Your task to perform on an android device: Go to notification settings Image 0: 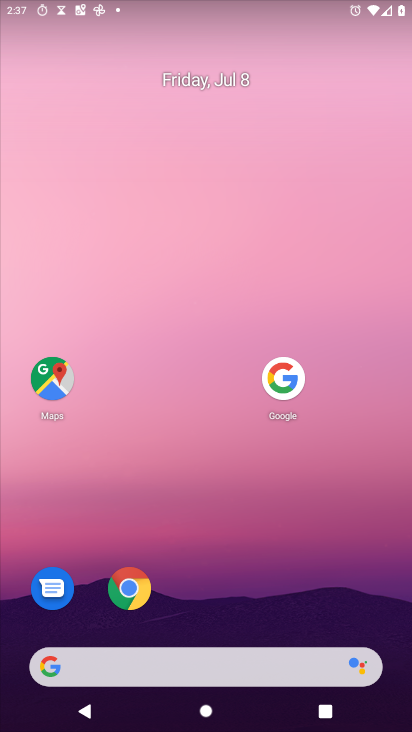
Step 0: drag from (250, 675) to (270, 140)
Your task to perform on an android device: Go to notification settings Image 1: 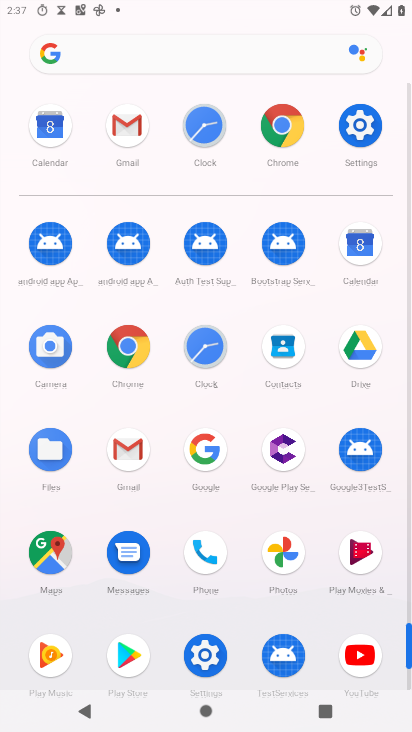
Step 1: click (350, 125)
Your task to perform on an android device: Go to notification settings Image 2: 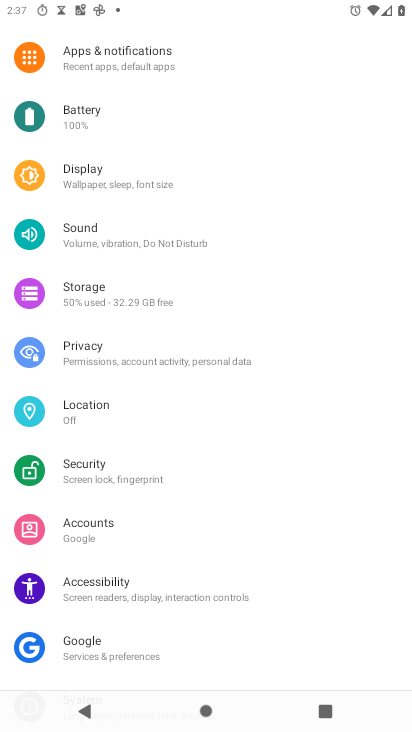
Step 2: click (141, 52)
Your task to perform on an android device: Go to notification settings Image 3: 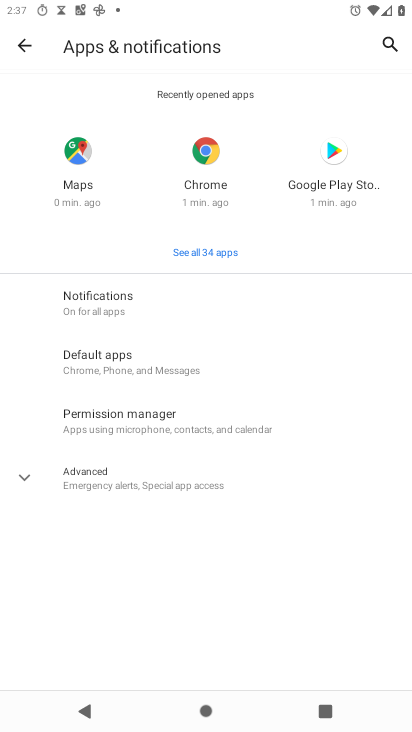
Step 3: click (106, 290)
Your task to perform on an android device: Go to notification settings Image 4: 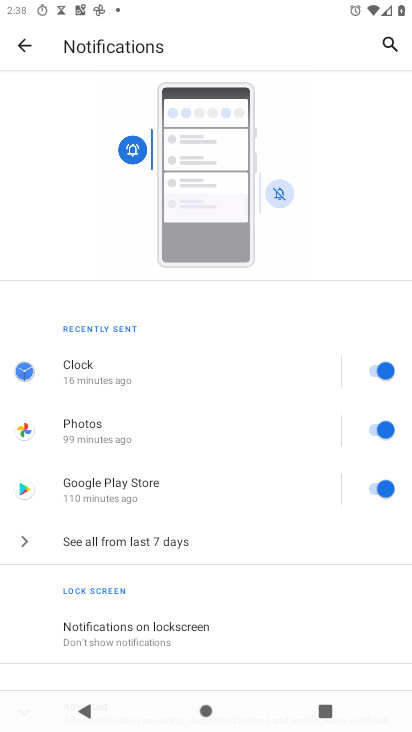
Step 4: task complete